Your task to perform on an android device: Open Maps and search for coffee Image 0: 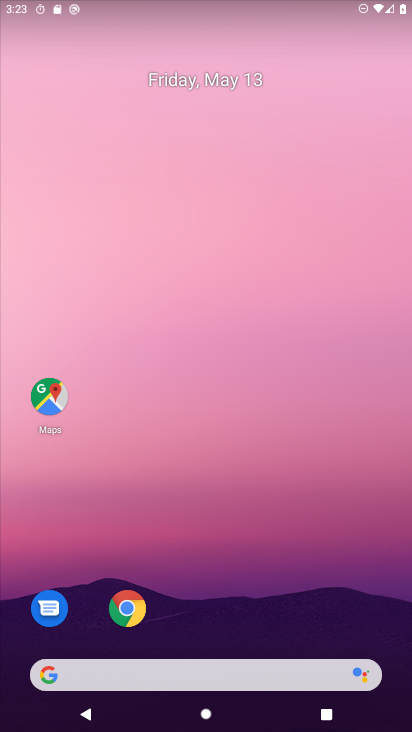
Step 0: click (46, 402)
Your task to perform on an android device: Open Maps and search for coffee Image 1: 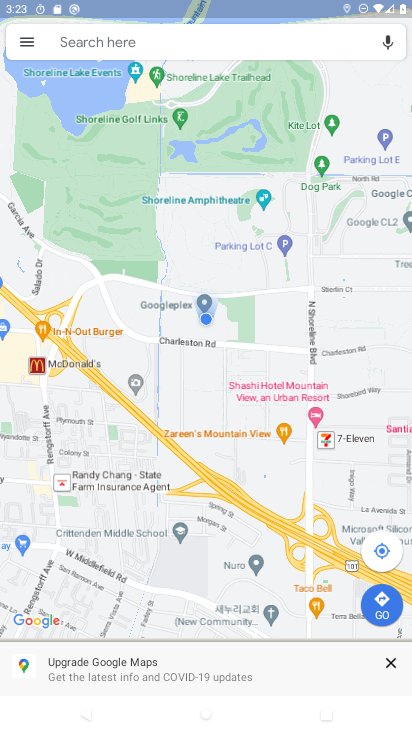
Step 1: click (110, 41)
Your task to perform on an android device: Open Maps and search for coffee Image 2: 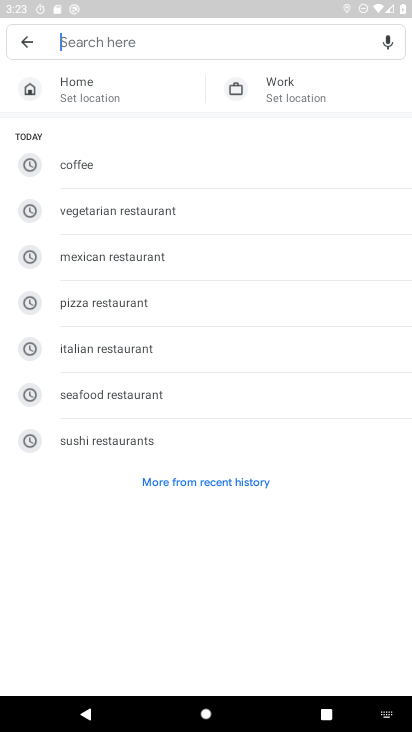
Step 2: type "coffee"
Your task to perform on an android device: Open Maps and search for coffee Image 3: 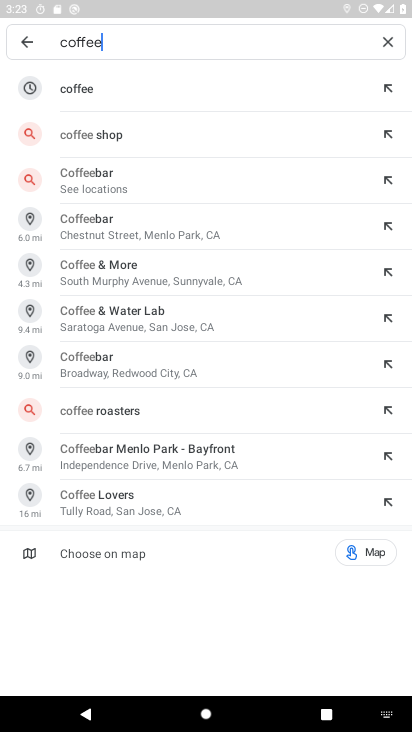
Step 3: click (146, 94)
Your task to perform on an android device: Open Maps and search for coffee Image 4: 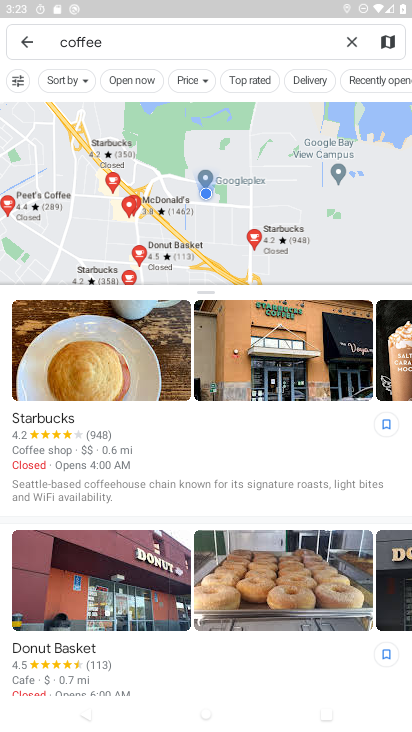
Step 4: task complete